Your task to perform on an android device: Open calendar and show me the second week of next month Image 0: 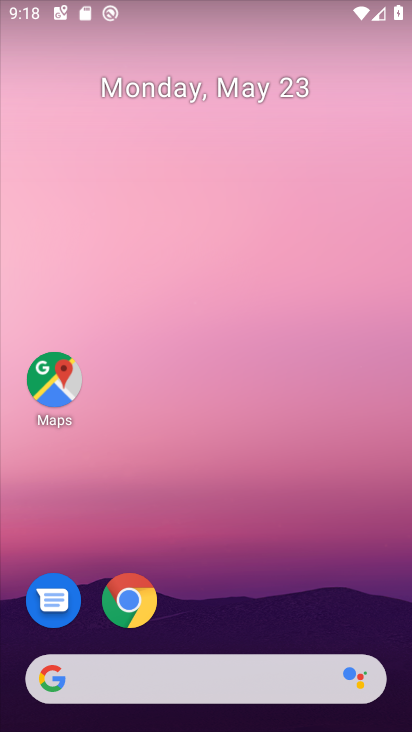
Step 0: drag from (213, 728) to (164, 97)
Your task to perform on an android device: Open calendar and show me the second week of next month Image 1: 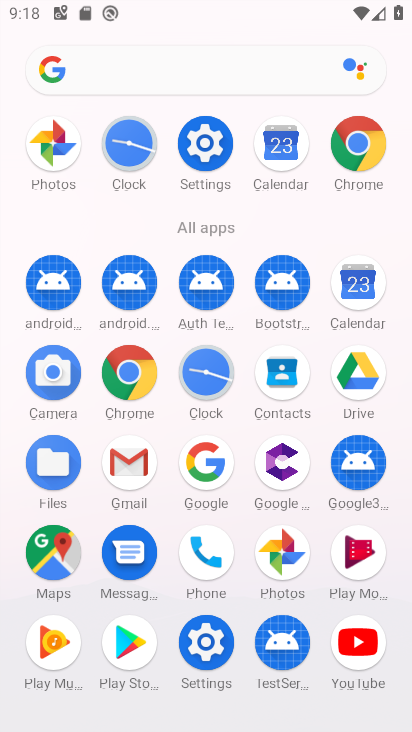
Step 1: click (354, 292)
Your task to perform on an android device: Open calendar and show me the second week of next month Image 2: 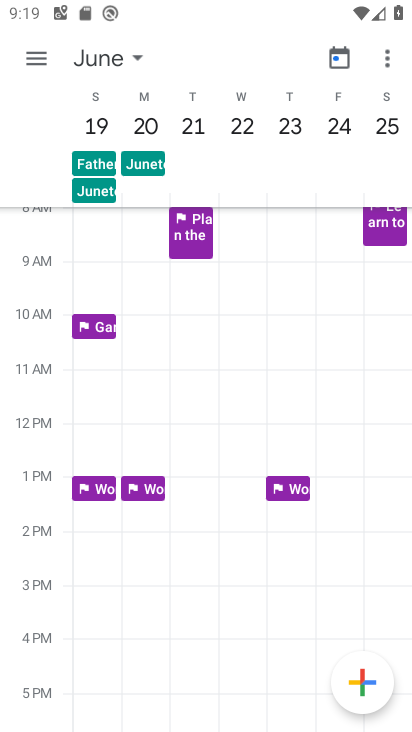
Step 2: click (135, 54)
Your task to perform on an android device: Open calendar and show me the second week of next month Image 3: 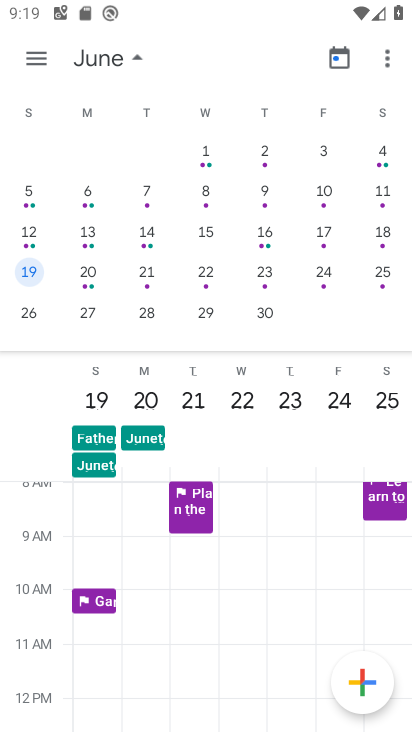
Step 3: click (88, 229)
Your task to perform on an android device: Open calendar and show me the second week of next month Image 4: 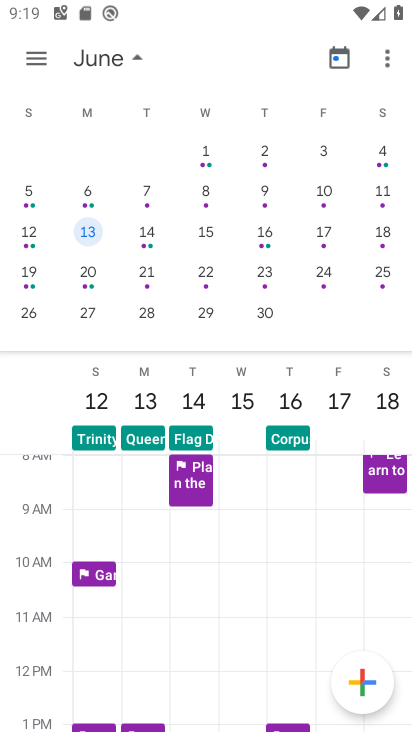
Step 4: click (35, 58)
Your task to perform on an android device: Open calendar and show me the second week of next month Image 5: 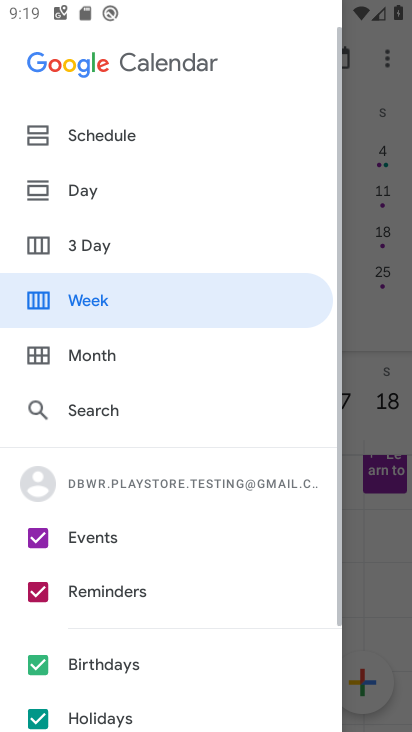
Step 5: click (88, 296)
Your task to perform on an android device: Open calendar and show me the second week of next month Image 6: 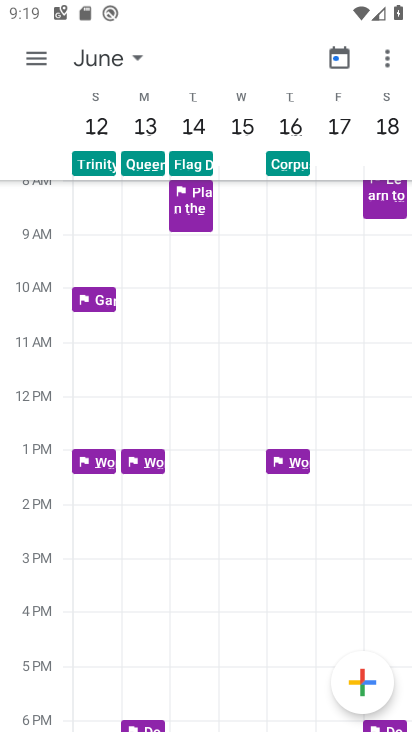
Step 6: task complete